Your task to perform on an android device: turn on location history Image 0: 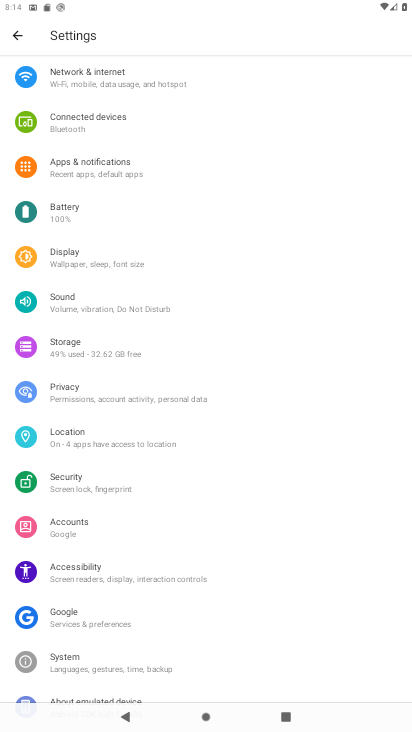
Step 0: press home button
Your task to perform on an android device: turn on location history Image 1: 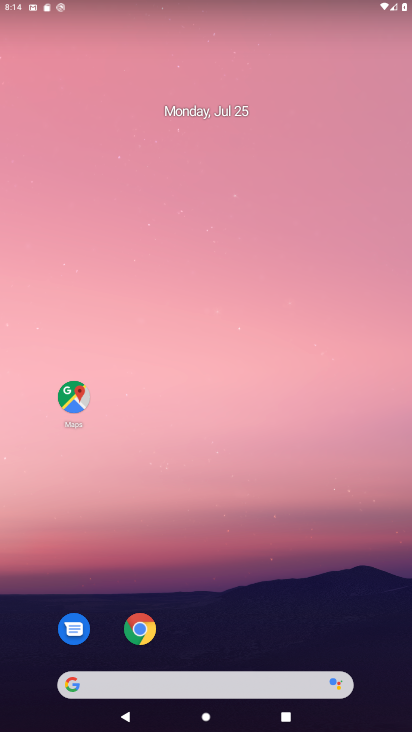
Step 1: drag from (192, 686) to (288, 76)
Your task to perform on an android device: turn on location history Image 2: 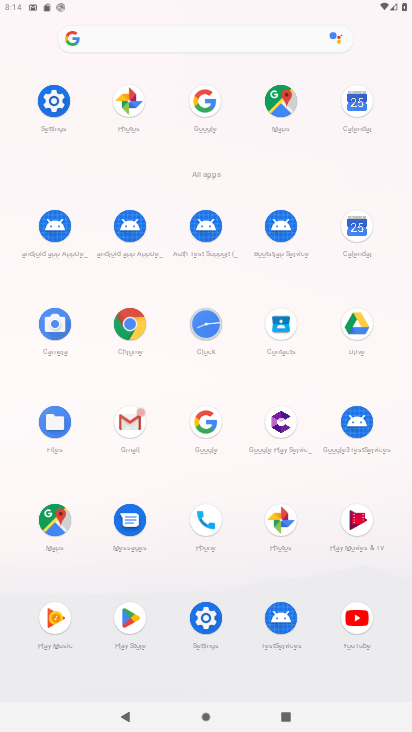
Step 2: click (202, 617)
Your task to perform on an android device: turn on location history Image 3: 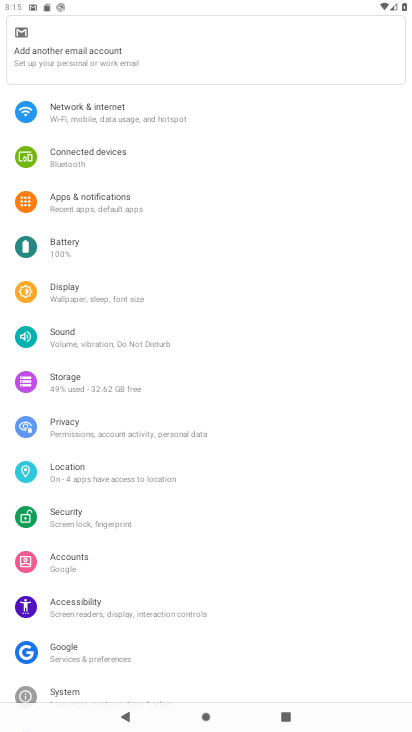
Step 3: click (81, 473)
Your task to perform on an android device: turn on location history Image 4: 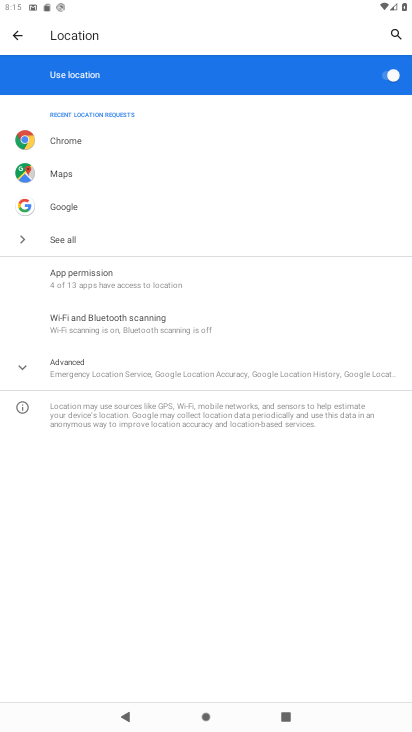
Step 4: click (82, 372)
Your task to perform on an android device: turn on location history Image 5: 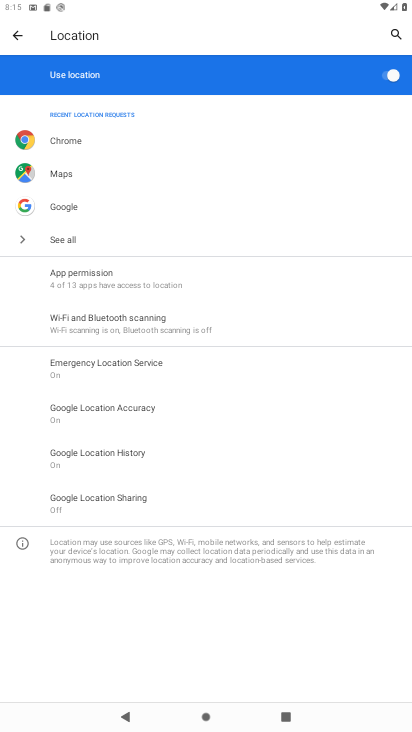
Step 5: task complete